Your task to perform on an android device: turn on airplane mode Image 0: 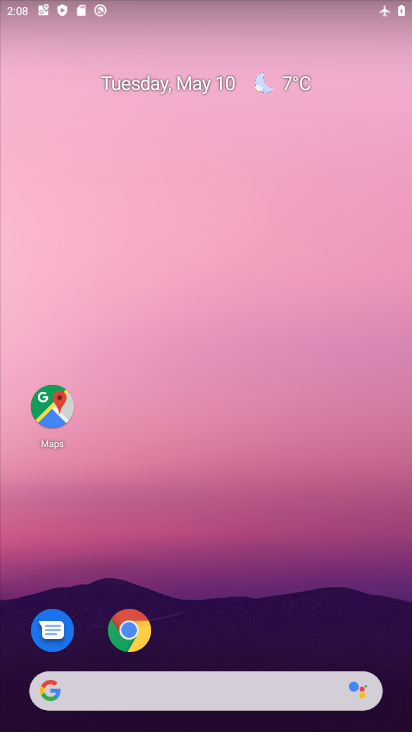
Step 0: drag from (225, 583) to (136, 33)
Your task to perform on an android device: turn on airplane mode Image 1: 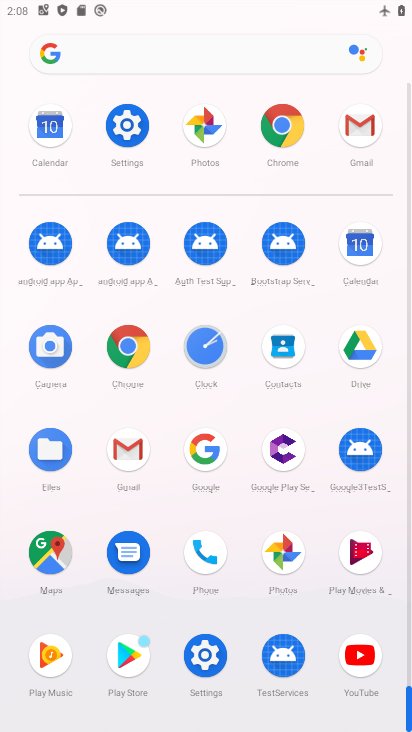
Step 1: click (123, 122)
Your task to perform on an android device: turn on airplane mode Image 2: 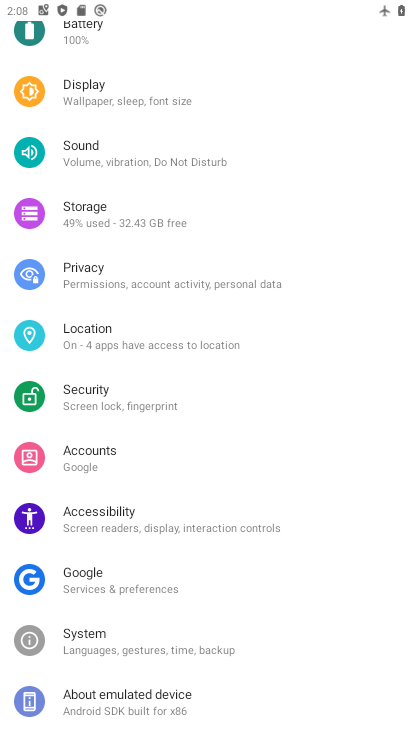
Step 2: drag from (218, 75) to (215, 452)
Your task to perform on an android device: turn on airplane mode Image 3: 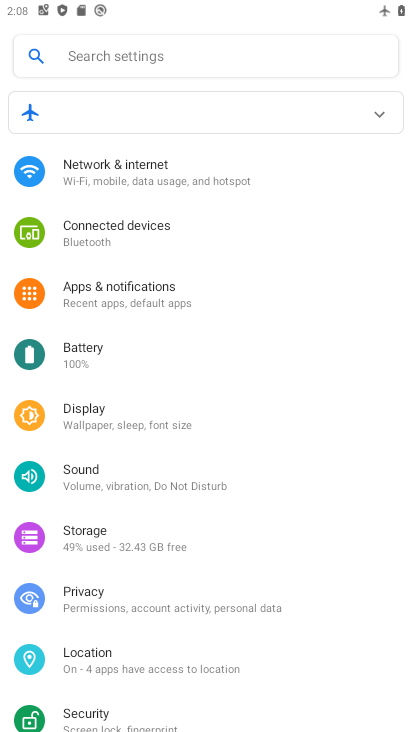
Step 3: click (160, 169)
Your task to perform on an android device: turn on airplane mode Image 4: 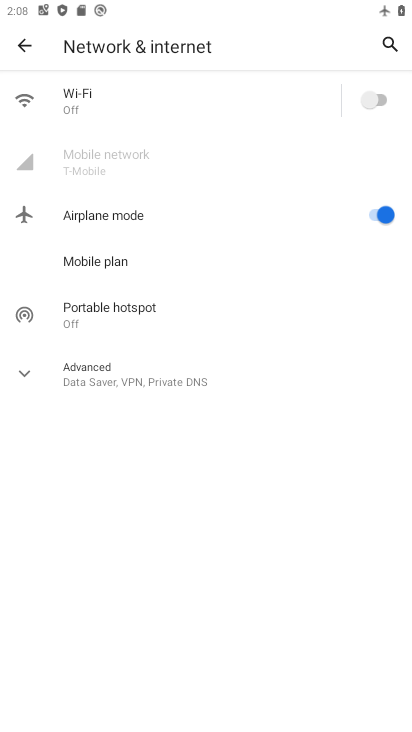
Step 4: click (31, 370)
Your task to perform on an android device: turn on airplane mode Image 5: 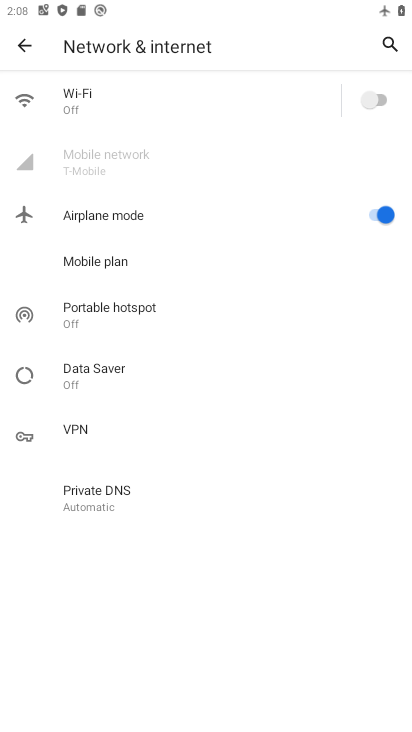
Step 5: task complete